Your task to perform on an android device: add a contact Image 0: 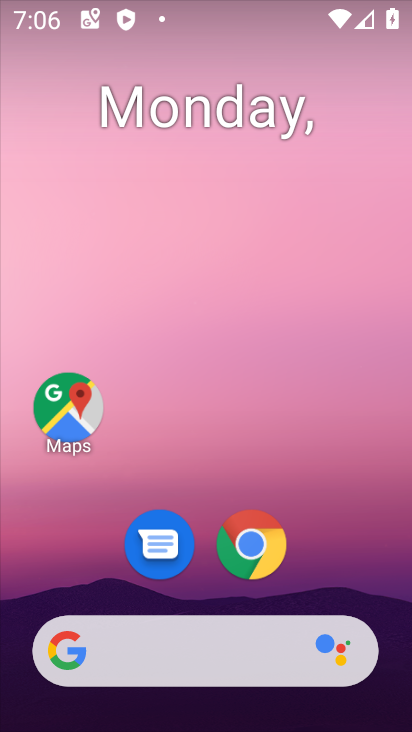
Step 0: drag from (344, 552) to (262, 204)
Your task to perform on an android device: add a contact Image 1: 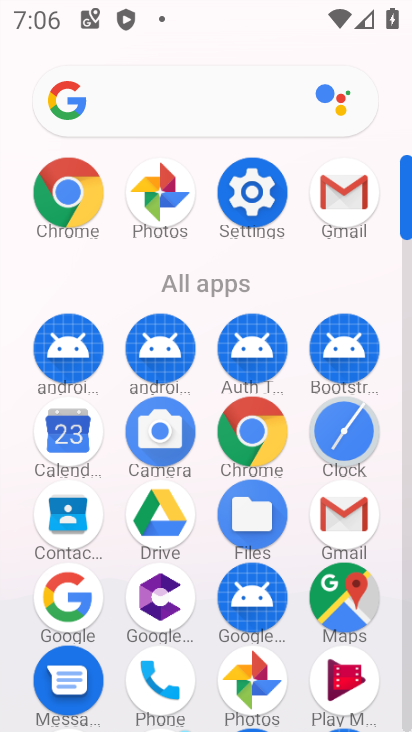
Step 1: click (71, 508)
Your task to perform on an android device: add a contact Image 2: 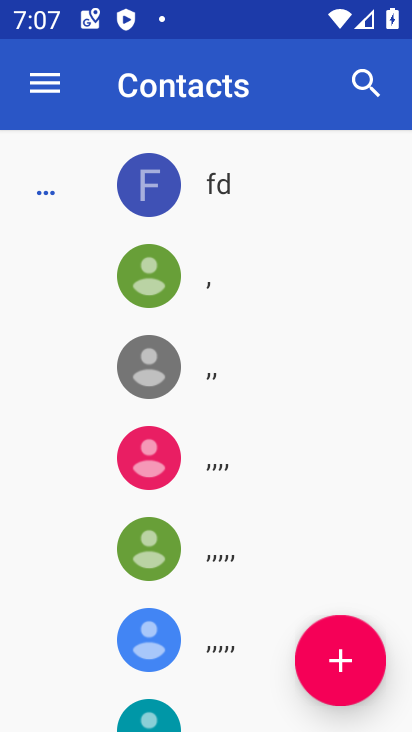
Step 2: click (334, 657)
Your task to perform on an android device: add a contact Image 3: 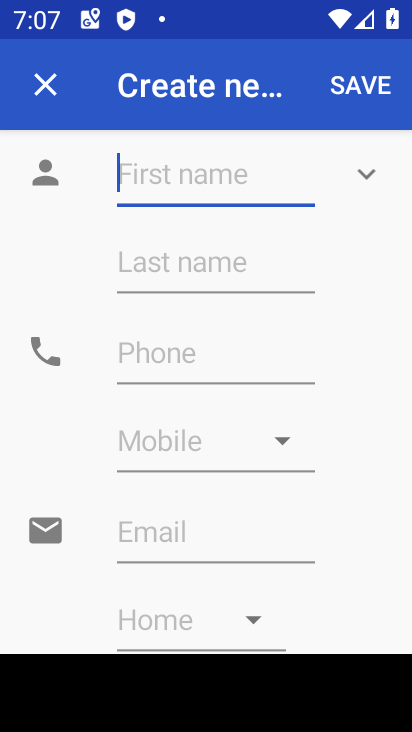
Step 3: type "rdwe"
Your task to perform on an android device: add a contact Image 4: 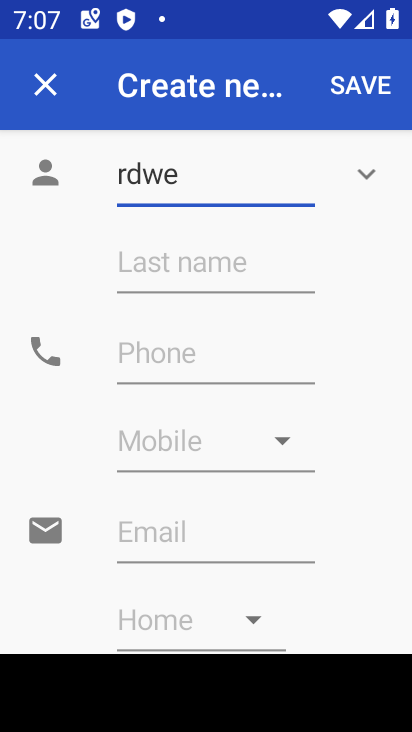
Step 4: click (174, 344)
Your task to perform on an android device: add a contact Image 5: 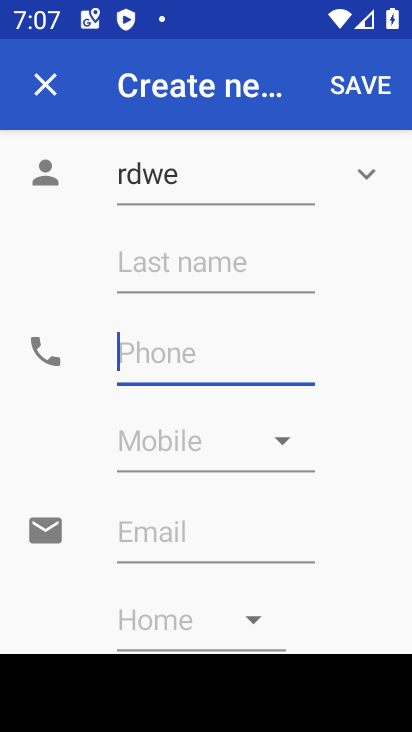
Step 5: type "0985465434554444"
Your task to perform on an android device: add a contact Image 6: 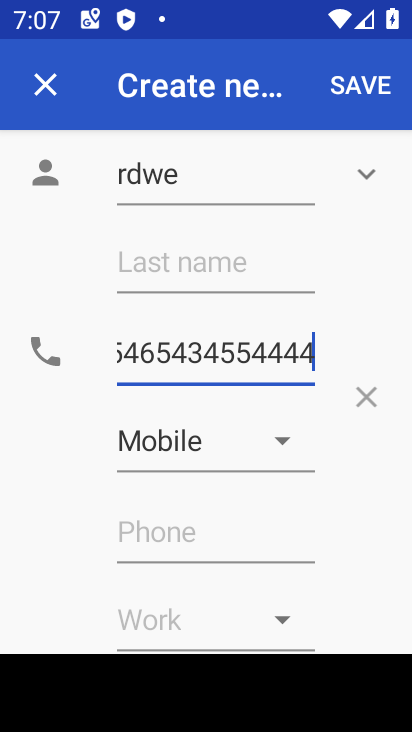
Step 6: click (361, 86)
Your task to perform on an android device: add a contact Image 7: 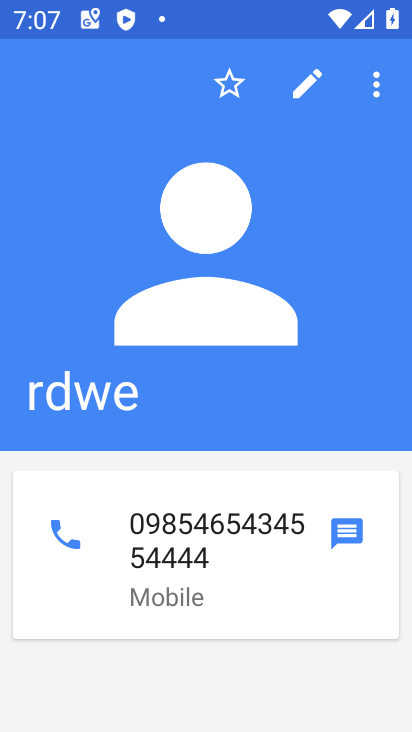
Step 7: task complete